Your task to perform on an android device: Check the news Image 0: 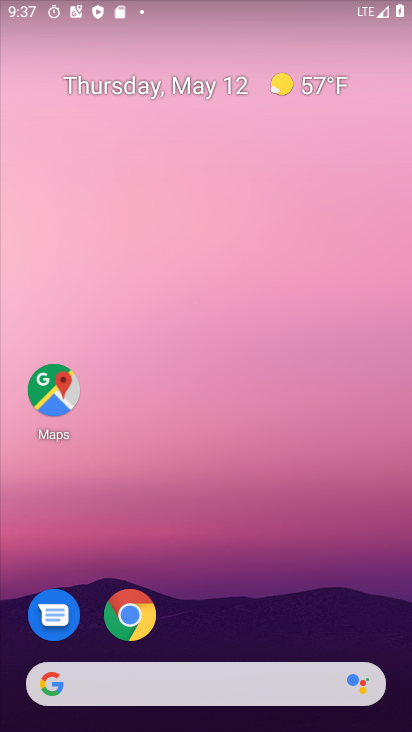
Step 0: drag from (250, 525) to (250, 102)
Your task to perform on an android device: Check the news Image 1: 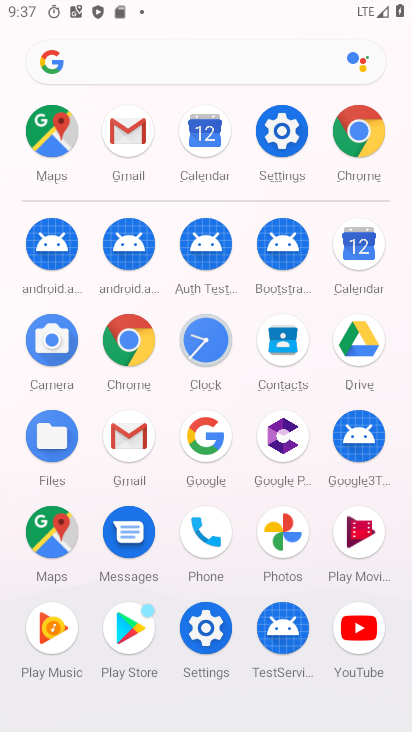
Step 1: drag from (16, 523) to (16, 268)
Your task to perform on an android device: Check the news Image 2: 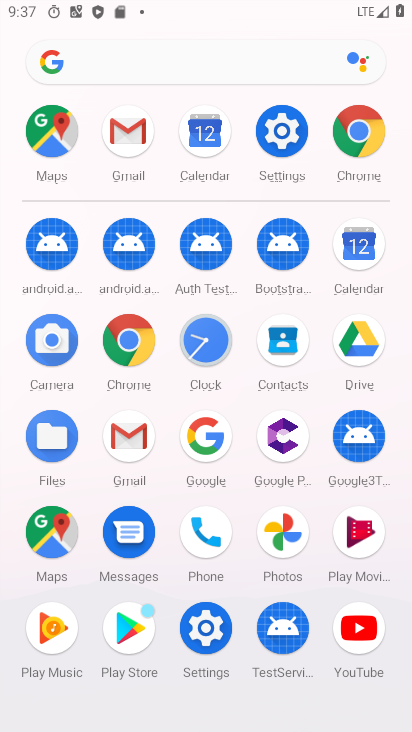
Step 2: click (125, 338)
Your task to perform on an android device: Check the news Image 3: 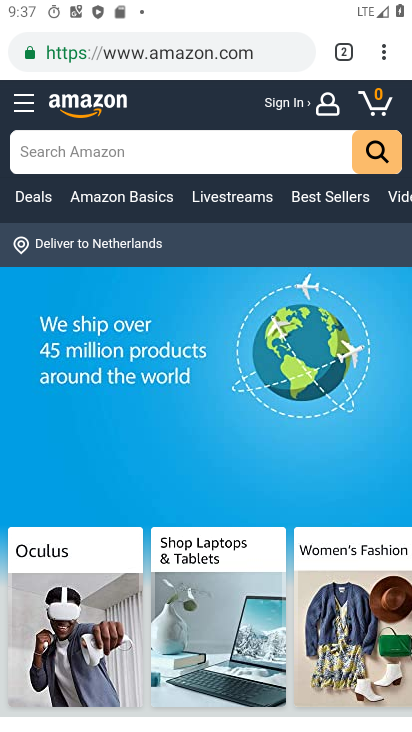
Step 3: click (148, 40)
Your task to perform on an android device: Check the news Image 4: 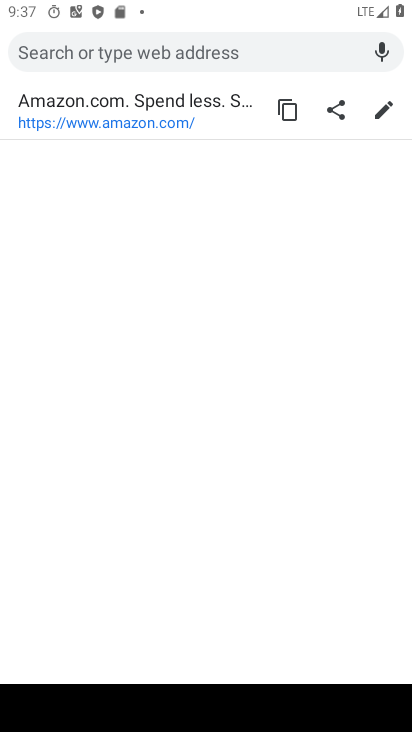
Step 4: type "Check the news"
Your task to perform on an android device: Check the news Image 5: 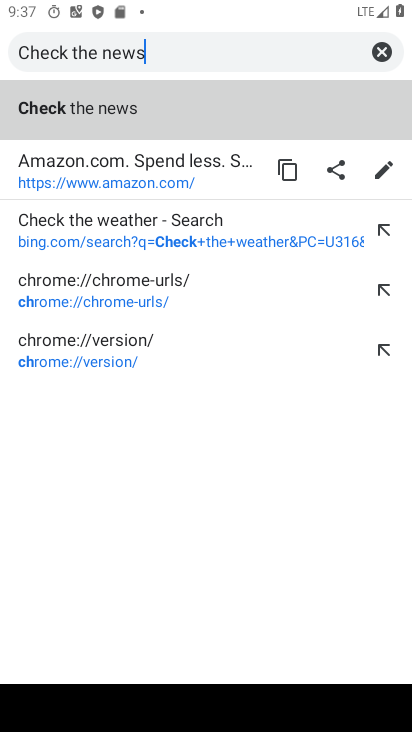
Step 5: type ""
Your task to perform on an android device: Check the news Image 6: 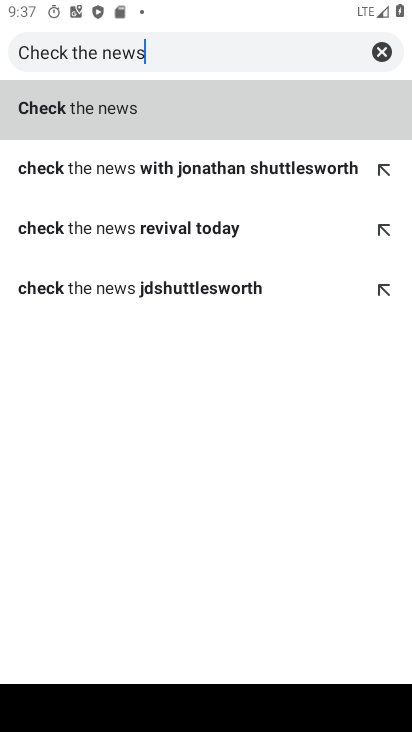
Step 6: click (116, 105)
Your task to perform on an android device: Check the news Image 7: 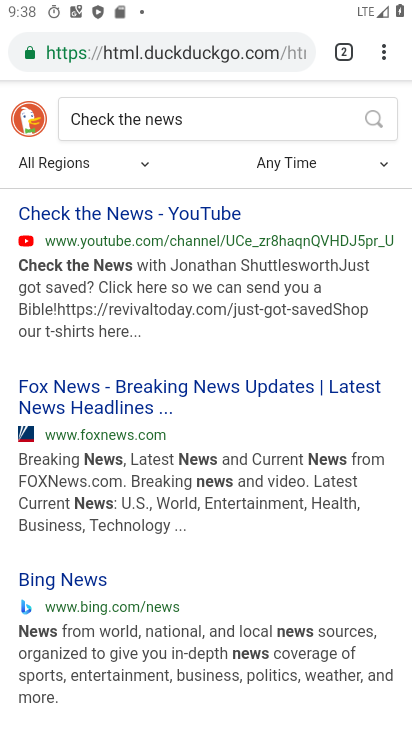
Step 7: click (134, 162)
Your task to perform on an android device: Check the news Image 8: 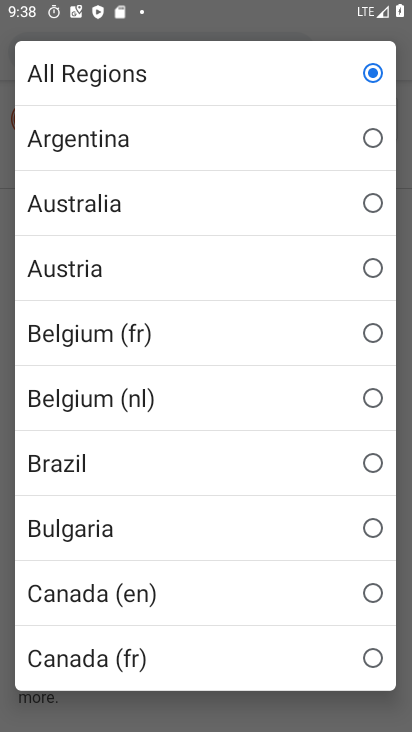
Step 8: click (52, 68)
Your task to perform on an android device: Check the news Image 9: 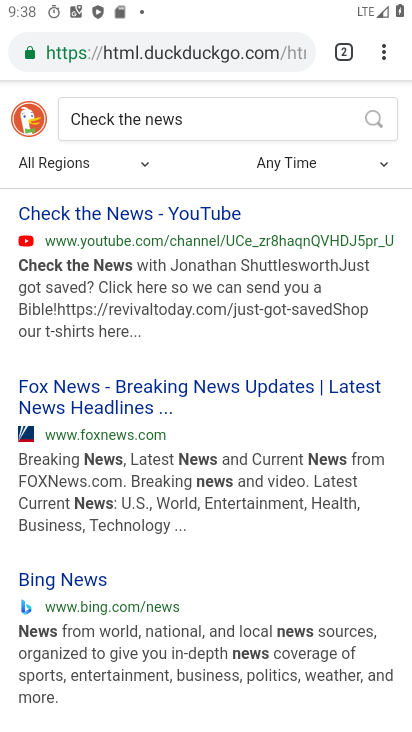
Step 9: click (297, 151)
Your task to perform on an android device: Check the news Image 10: 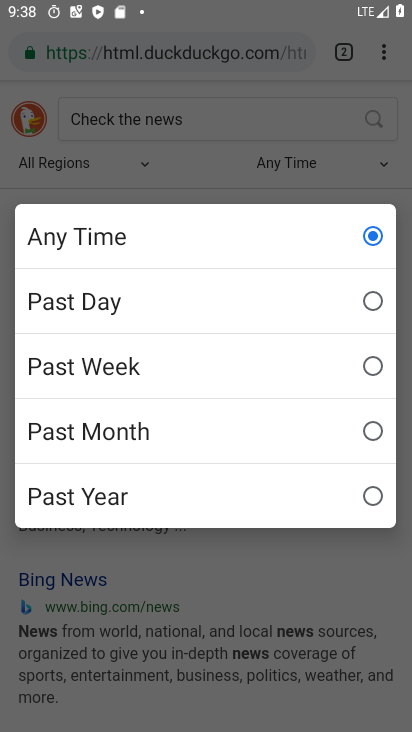
Step 10: click (217, 290)
Your task to perform on an android device: Check the news Image 11: 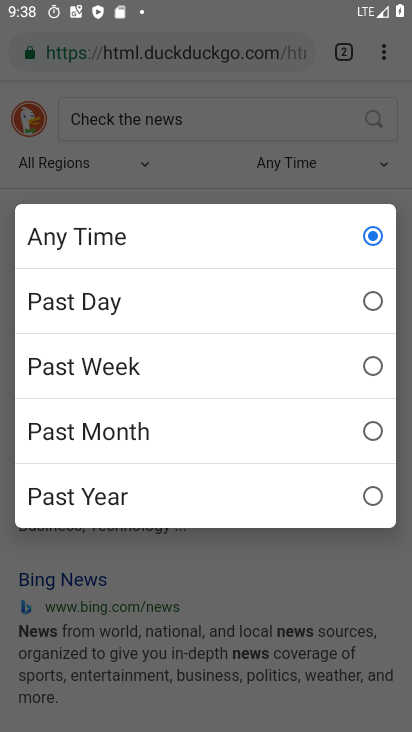
Step 11: click (206, 301)
Your task to perform on an android device: Check the news Image 12: 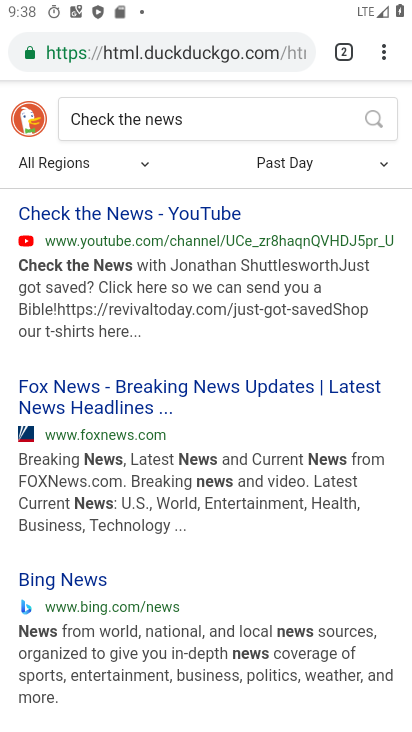
Step 12: drag from (188, 303) to (202, 586)
Your task to perform on an android device: Check the news Image 13: 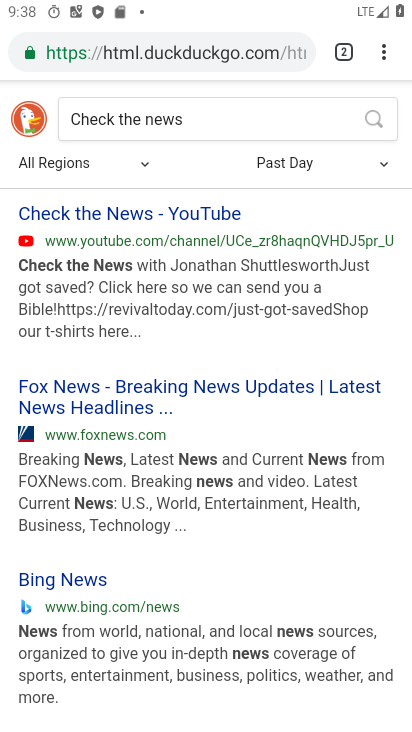
Step 13: click (197, 116)
Your task to perform on an android device: Check the news Image 14: 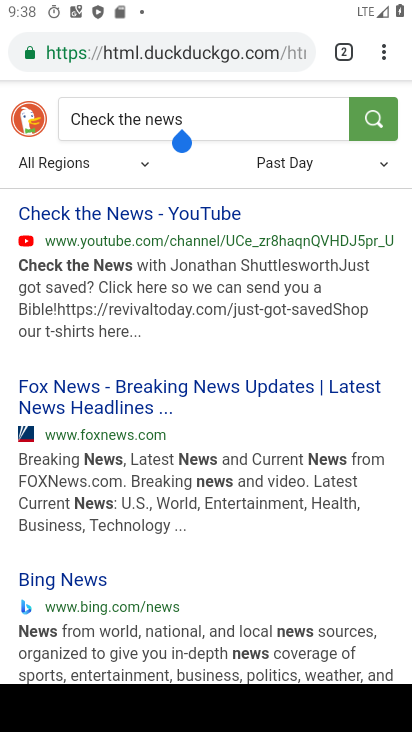
Step 14: click (382, 124)
Your task to perform on an android device: Check the news Image 15: 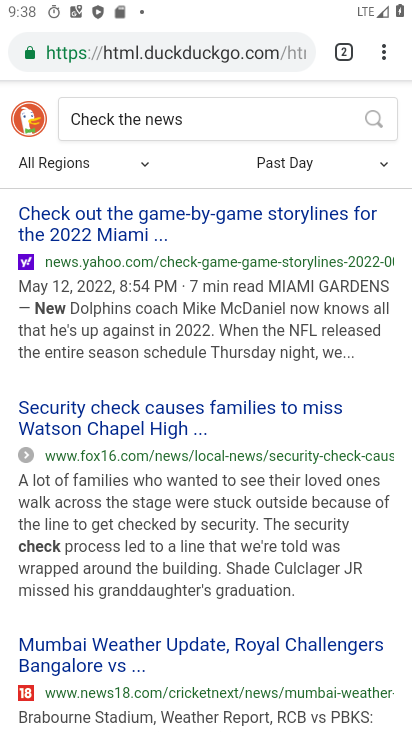
Step 15: task complete